Your task to perform on an android device: toggle airplane mode Image 0: 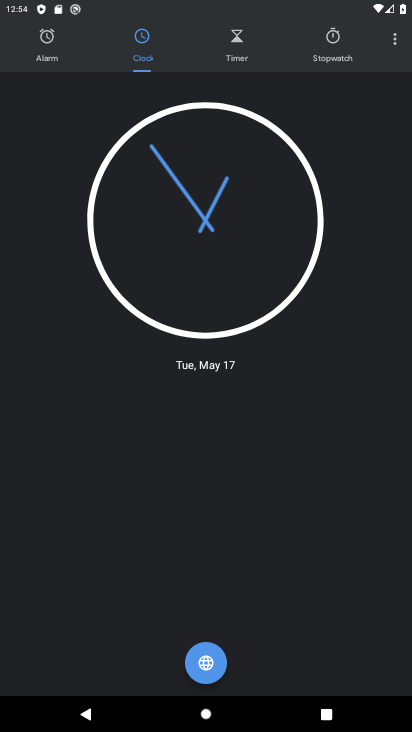
Step 0: drag from (286, 13) to (71, 698)
Your task to perform on an android device: toggle airplane mode Image 1: 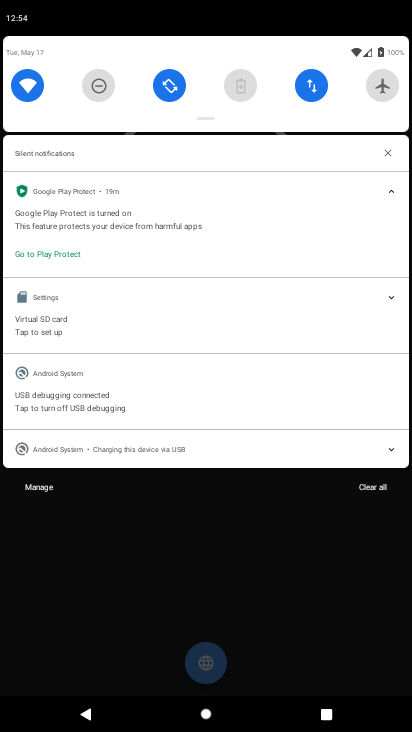
Step 1: click (382, 92)
Your task to perform on an android device: toggle airplane mode Image 2: 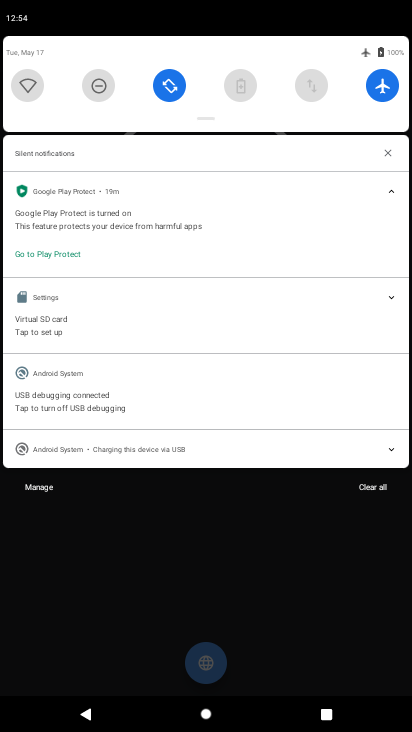
Step 2: click (382, 92)
Your task to perform on an android device: toggle airplane mode Image 3: 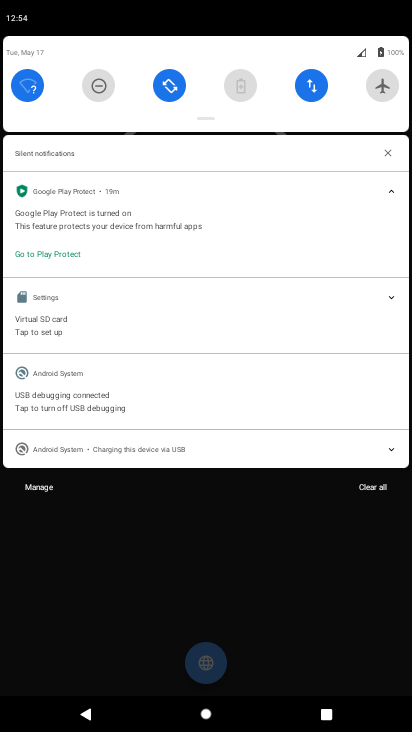
Step 3: click (382, 92)
Your task to perform on an android device: toggle airplane mode Image 4: 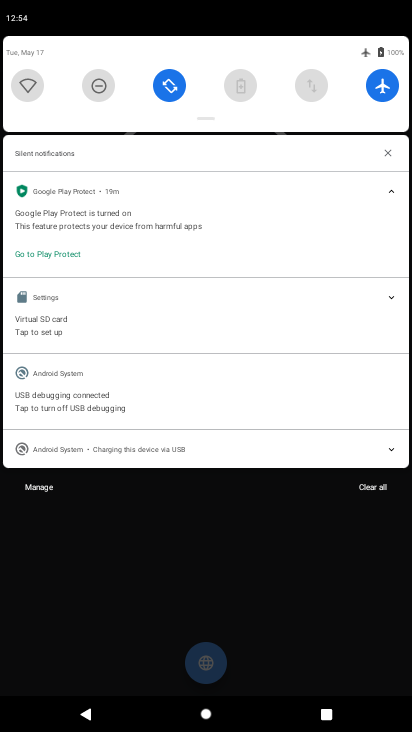
Step 4: click (382, 92)
Your task to perform on an android device: toggle airplane mode Image 5: 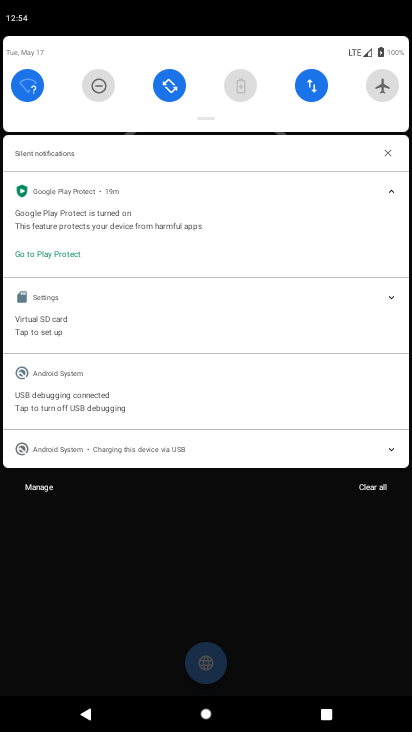
Step 5: task complete